Your task to perform on an android device: Open maps Image 0: 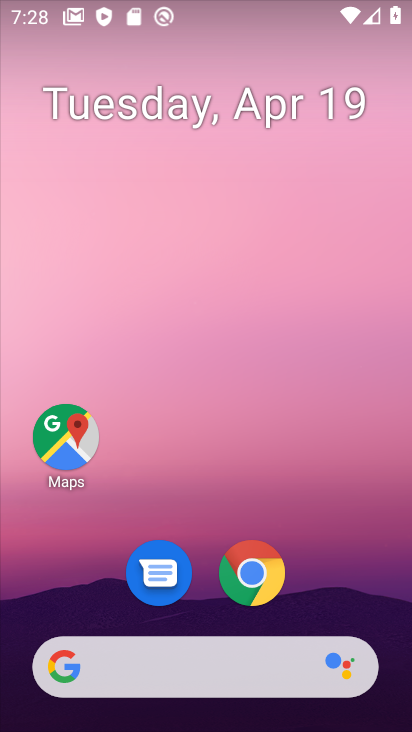
Step 0: click (55, 427)
Your task to perform on an android device: Open maps Image 1: 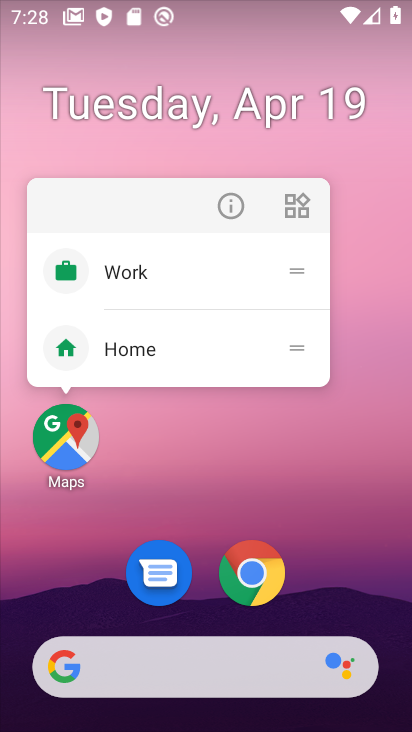
Step 1: click (55, 427)
Your task to perform on an android device: Open maps Image 2: 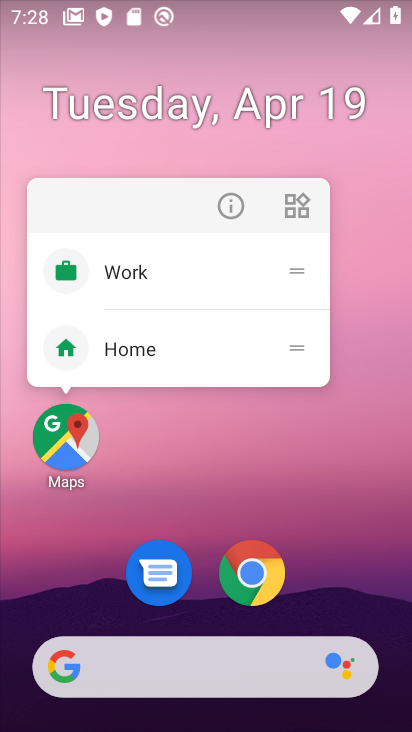
Step 2: click (59, 428)
Your task to perform on an android device: Open maps Image 3: 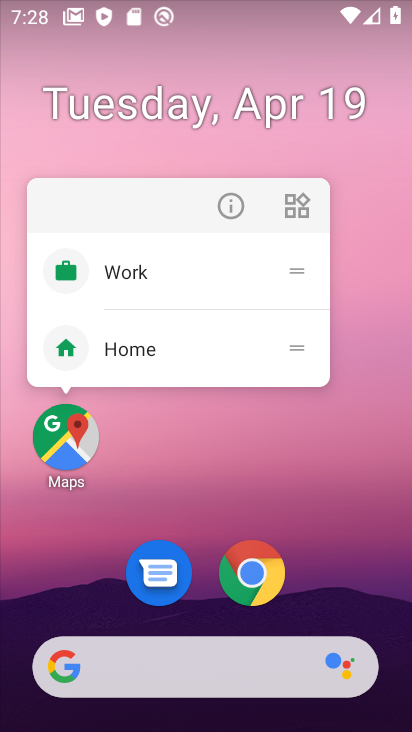
Step 3: click (59, 428)
Your task to perform on an android device: Open maps Image 4: 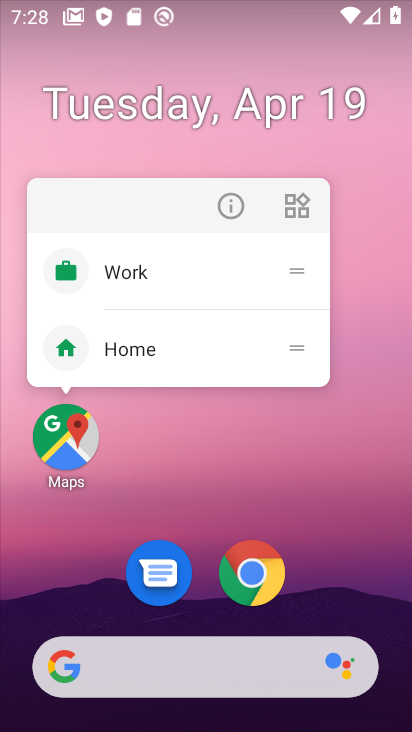
Step 4: click (59, 428)
Your task to perform on an android device: Open maps Image 5: 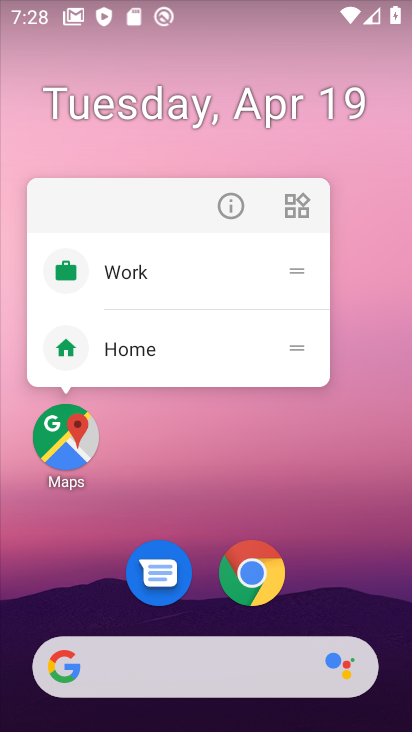
Step 5: click (59, 428)
Your task to perform on an android device: Open maps Image 6: 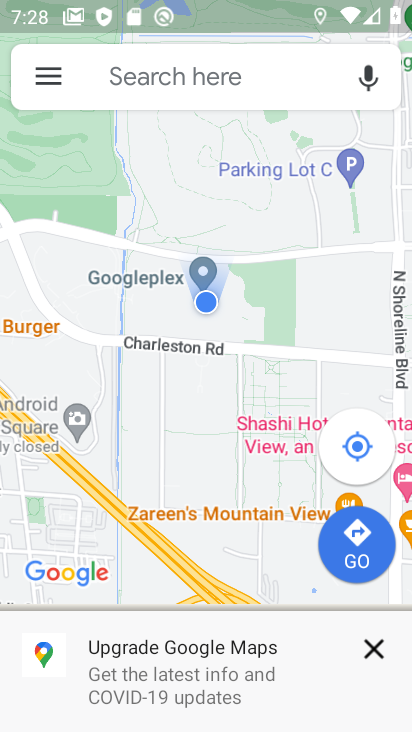
Step 6: task complete